Your task to perform on an android device: Go to Amazon Image 0: 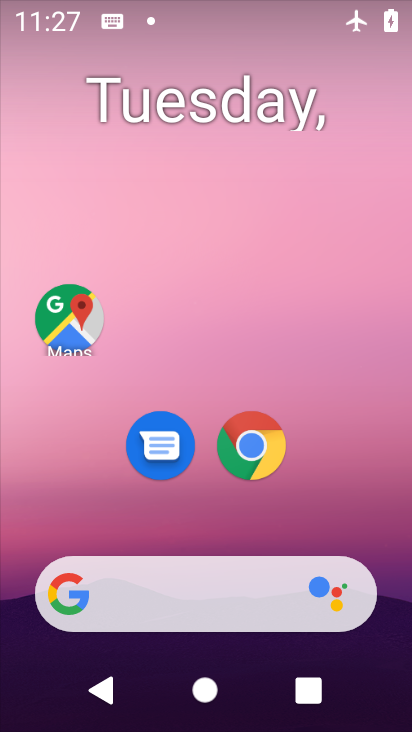
Step 0: drag from (344, 438) to (249, 25)
Your task to perform on an android device: Go to Amazon Image 1: 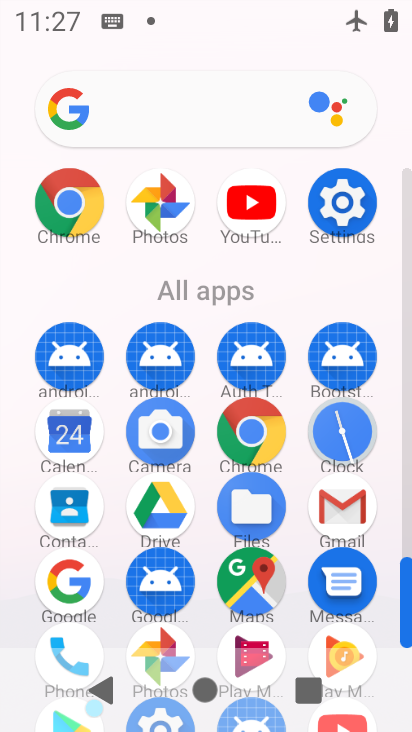
Step 1: drag from (12, 573) to (5, 206)
Your task to perform on an android device: Go to Amazon Image 2: 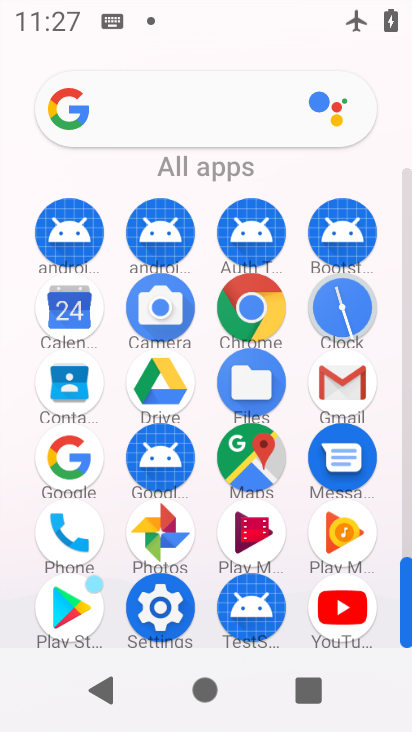
Step 2: click (249, 301)
Your task to perform on an android device: Go to Amazon Image 3: 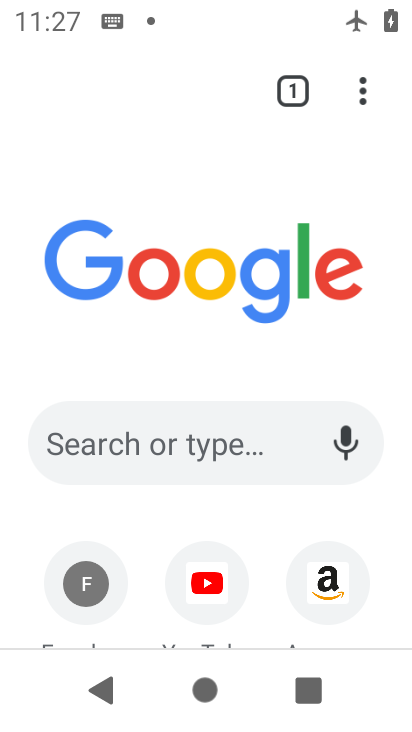
Step 3: click (333, 567)
Your task to perform on an android device: Go to Amazon Image 4: 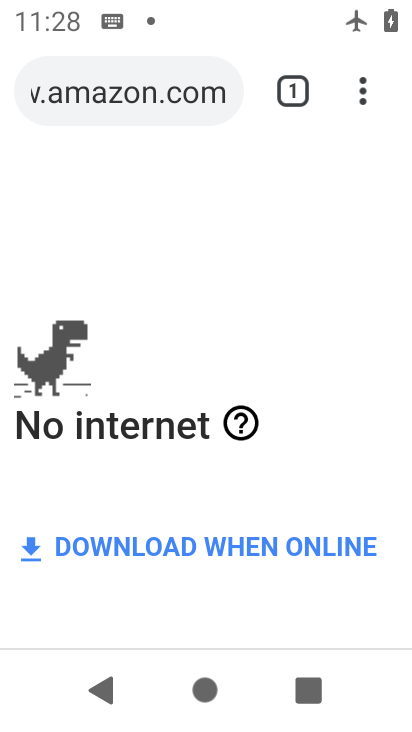
Step 4: task complete